Your task to perform on an android device: Open maps Image 0: 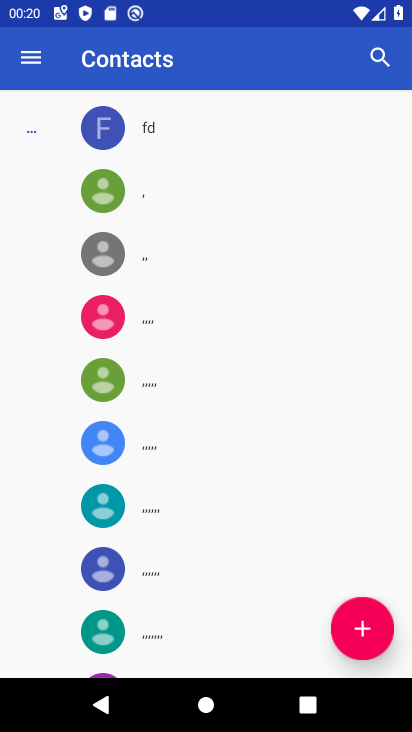
Step 0: press home button
Your task to perform on an android device: Open maps Image 1: 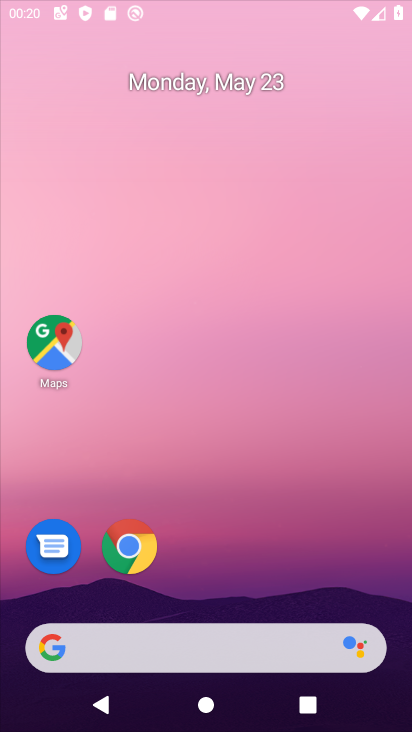
Step 1: drag from (320, 554) to (408, 109)
Your task to perform on an android device: Open maps Image 2: 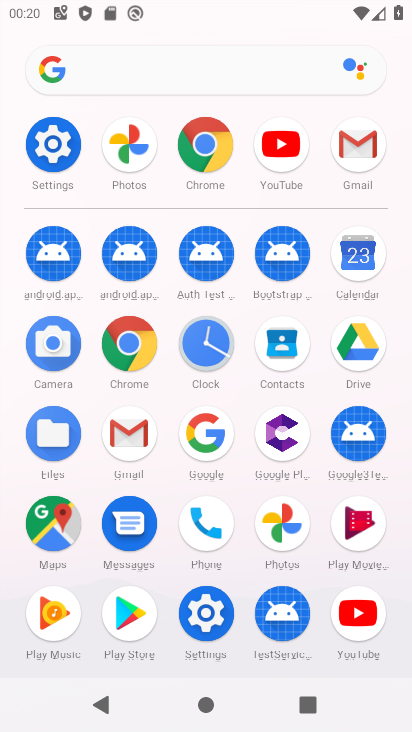
Step 2: click (40, 510)
Your task to perform on an android device: Open maps Image 3: 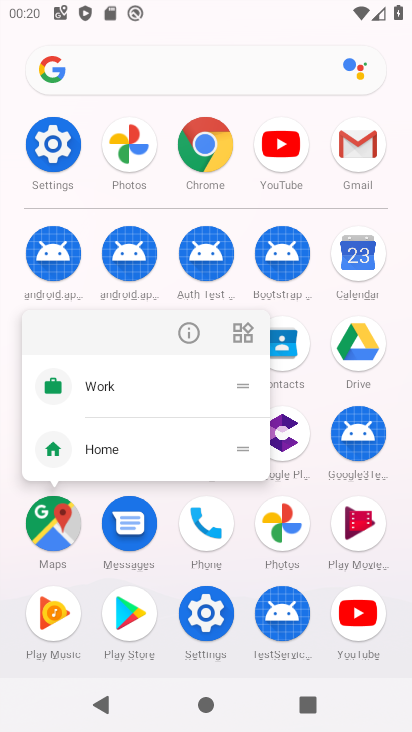
Step 3: click (179, 339)
Your task to perform on an android device: Open maps Image 4: 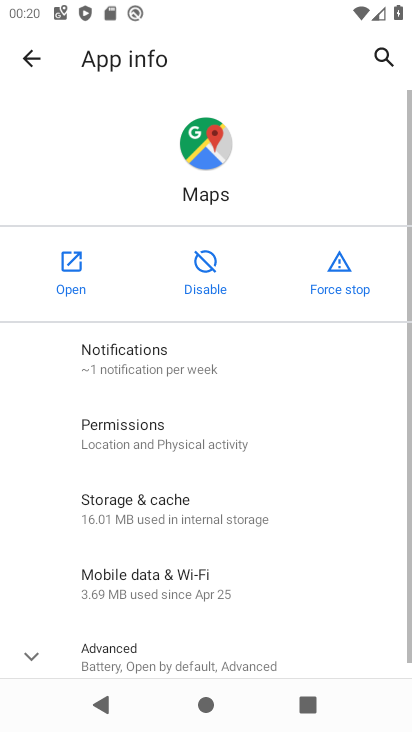
Step 4: click (59, 259)
Your task to perform on an android device: Open maps Image 5: 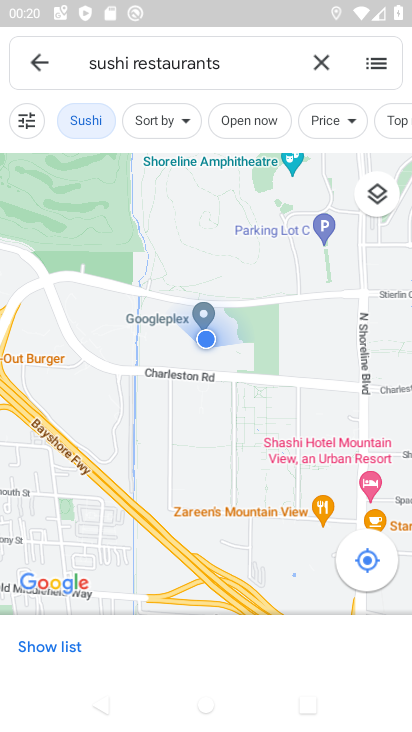
Step 5: task complete